Your task to perform on an android device: Do I have any events tomorrow? Image 0: 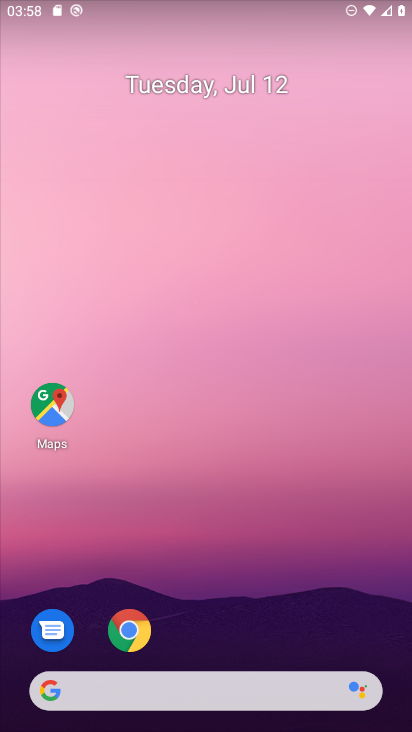
Step 0: drag from (298, 619) to (317, 123)
Your task to perform on an android device: Do I have any events tomorrow? Image 1: 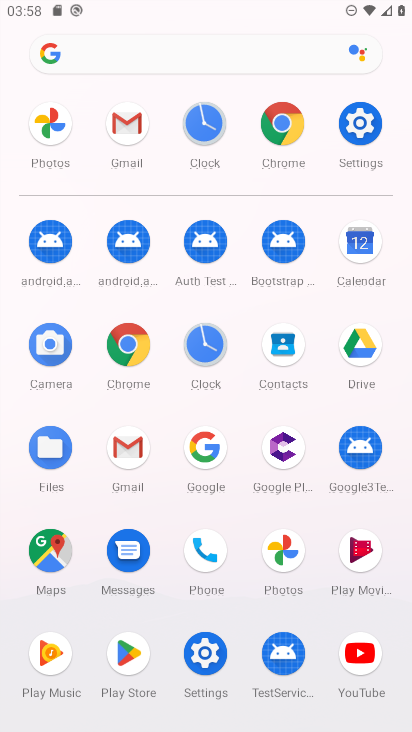
Step 1: click (356, 244)
Your task to perform on an android device: Do I have any events tomorrow? Image 2: 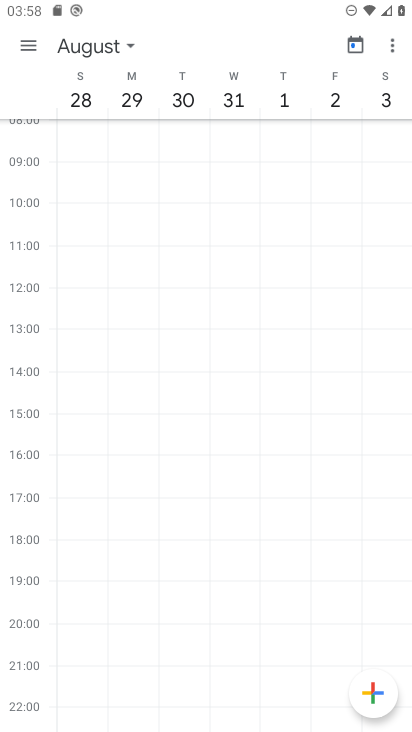
Step 2: click (33, 42)
Your task to perform on an android device: Do I have any events tomorrow? Image 3: 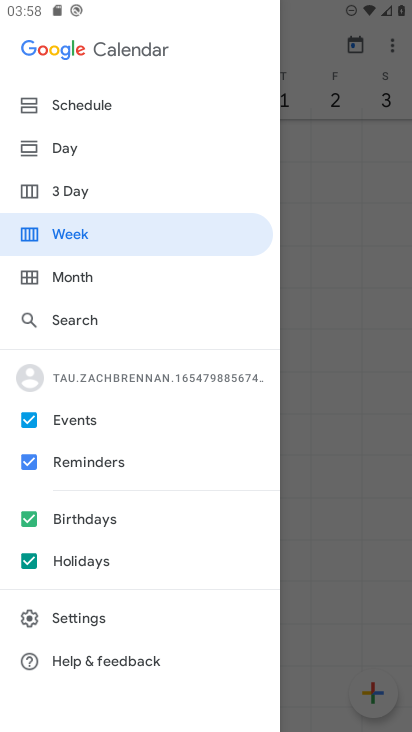
Step 3: click (64, 142)
Your task to perform on an android device: Do I have any events tomorrow? Image 4: 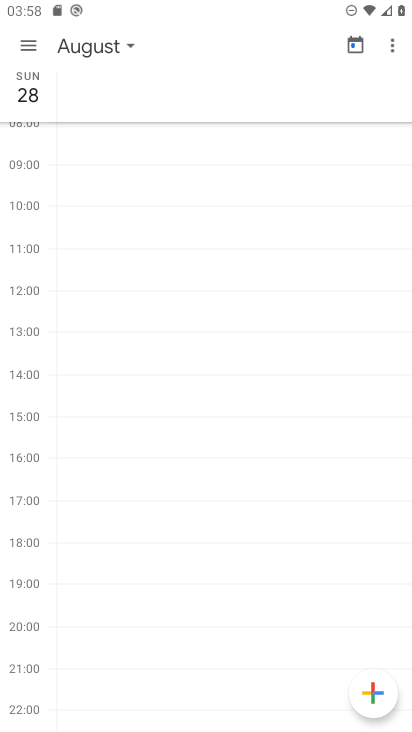
Step 4: click (127, 43)
Your task to perform on an android device: Do I have any events tomorrow? Image 5: 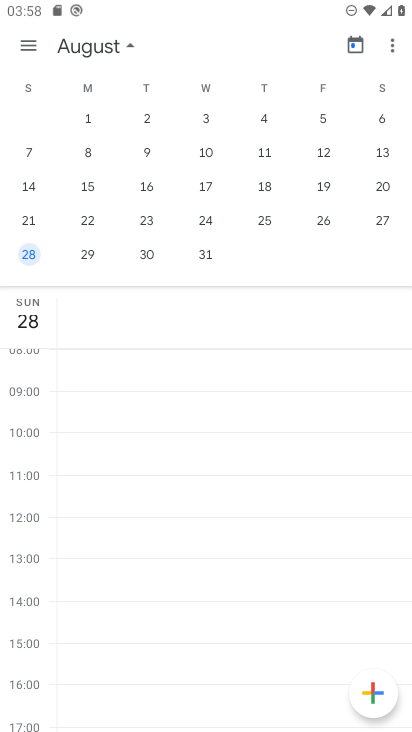
Step 5: drag from (26, 219) to (377, 183)
Your task to perform on an android device: Do I have any events tomorrow? Image 6: 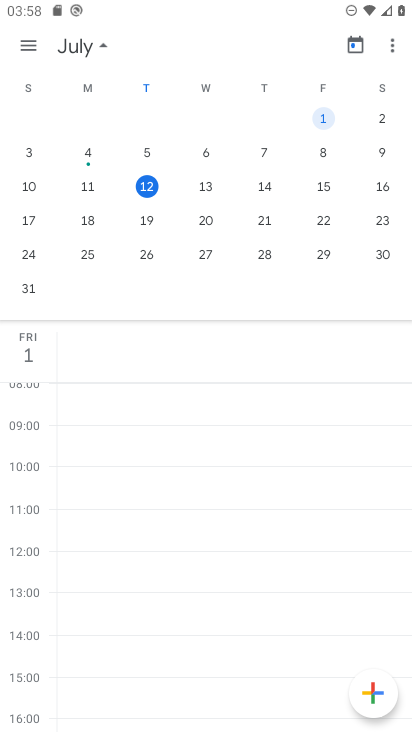
Step 6: click (204, 185)
Your task to perform on an android device: Do I have any events tomorrow? Image 7: 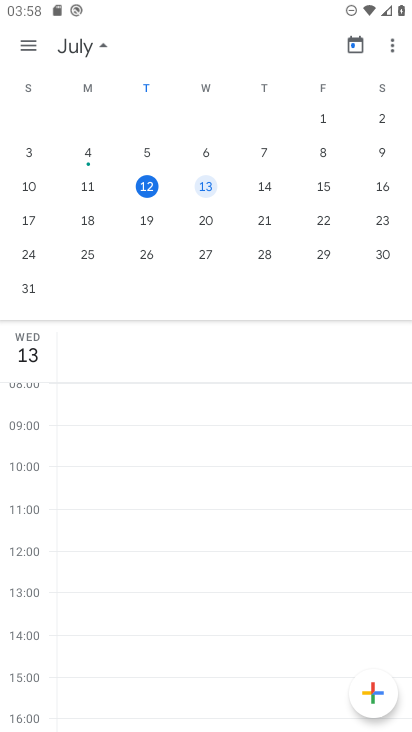
Step 7: task complete